Your task to perform on an android device: Go to Amazon Image 0: 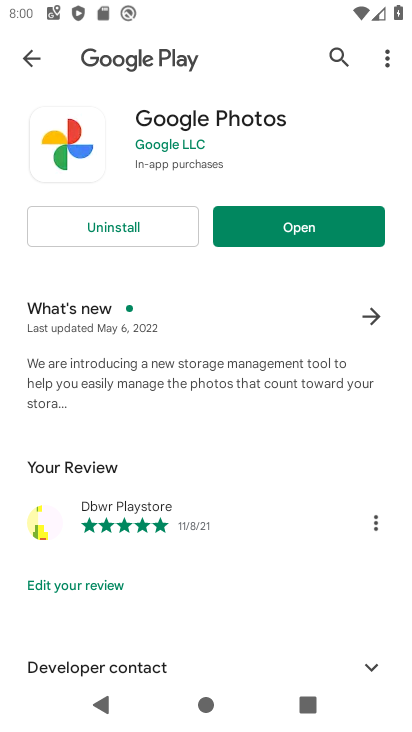
Step 0: press home button
Your task to perform on an android device: Go to Amazon Image 1: 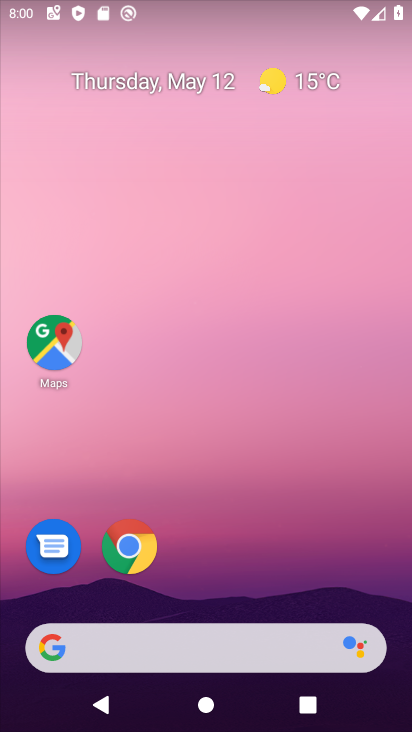
Step 1: click (133, 540)
Your task to perform on an android device: Go to Amazon Image 2: 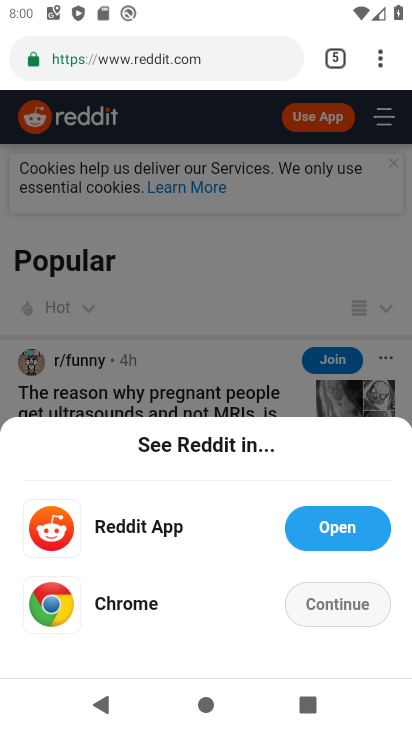
Step 2: drag from (377, 61) to (303, 130)
Your task to perform on an android device: Go to Amazon Image 3: 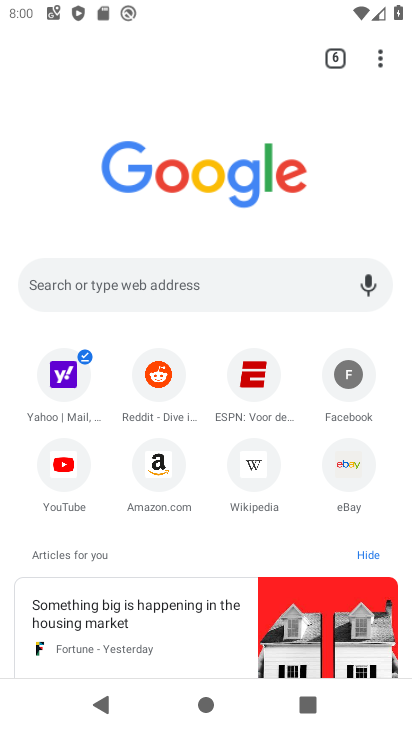
Step 3: click (156, 485)
Your task to perform on an android device: Go to Amazon Image 4: 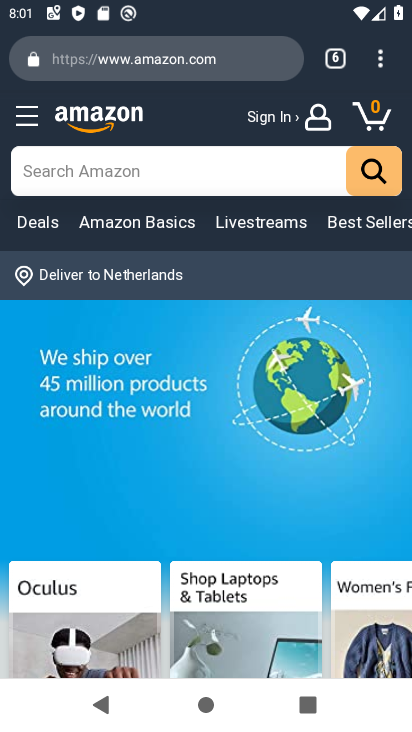
Step 4: task complete